Your task to perform on an android device: Open my contact list Image 0: 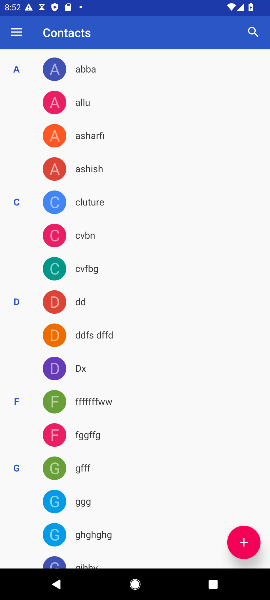
Step 0: task complete